Your task to perform on an android device: change notification settings in the gmail app Image 0: 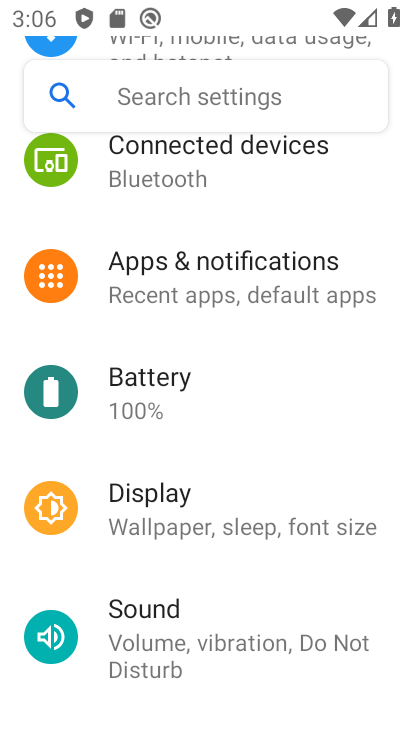
Step 0: click (298, 264)
Your task to perform on an android device: change notification settings in the gmail app Image 1: 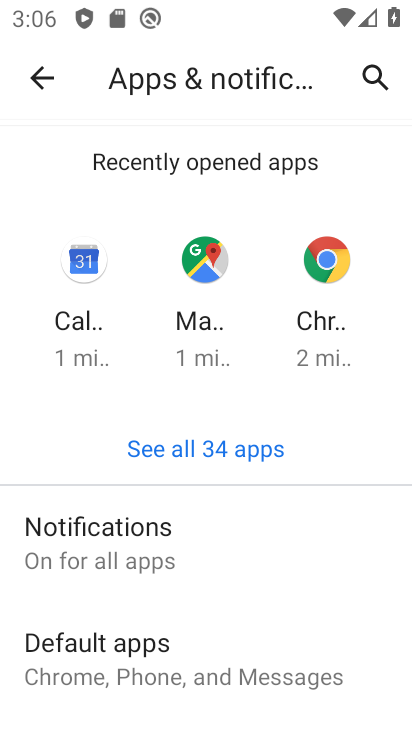
Step 1: click (115, 520)
Your task to perform on an android device: change notification settings in the gmail app Image 2: 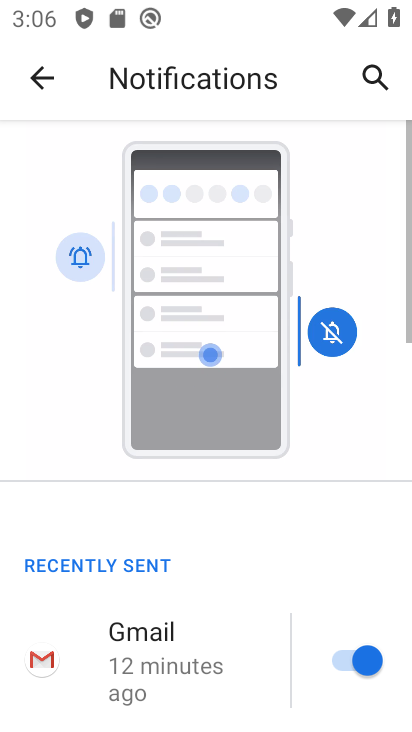
Step 2: drag from (241, 622) to (201, 305)
Your task to perform on an android device: change notification settings in the gmail app Image 3: 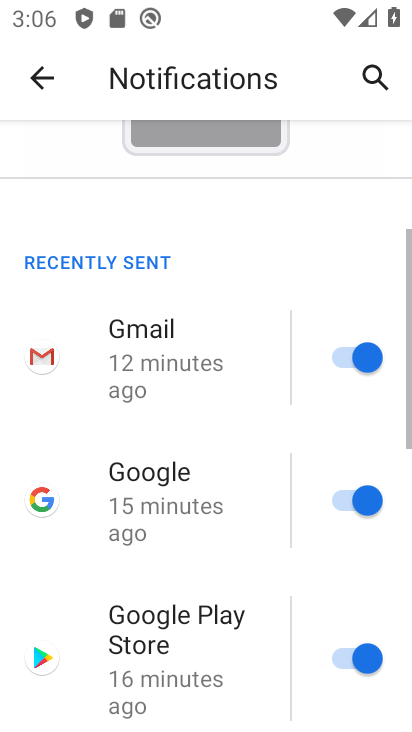
Step 3: drag from (215, 562) to (197, 278)
Your task to perform on an android device: change notification settings in the gmail app Image 4: 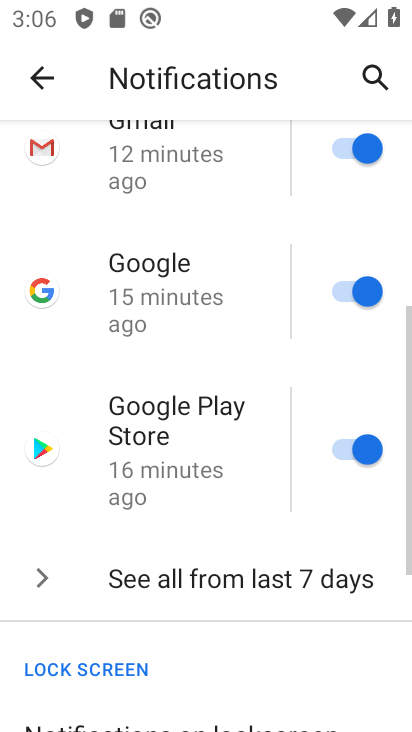
Step 4: drag from (199, 617) to (208, 274)
Your task to perform on an android device: change notification settings in the gmail app Image 5: 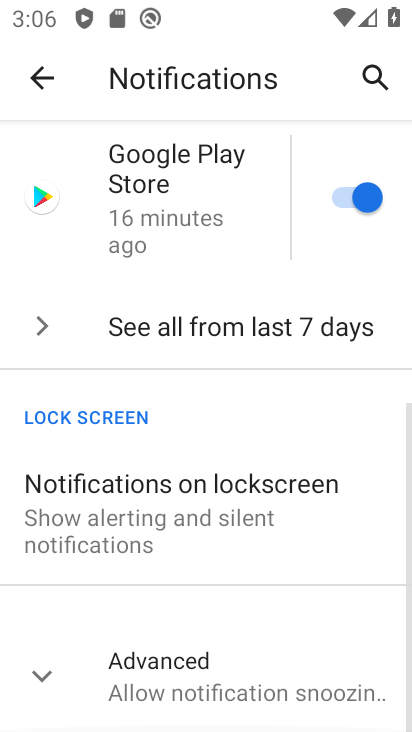
Step 5: drag from (196, 545) to (211, 317)
Your task to perform on an android device: change notification settings in the gmail app Image 6: 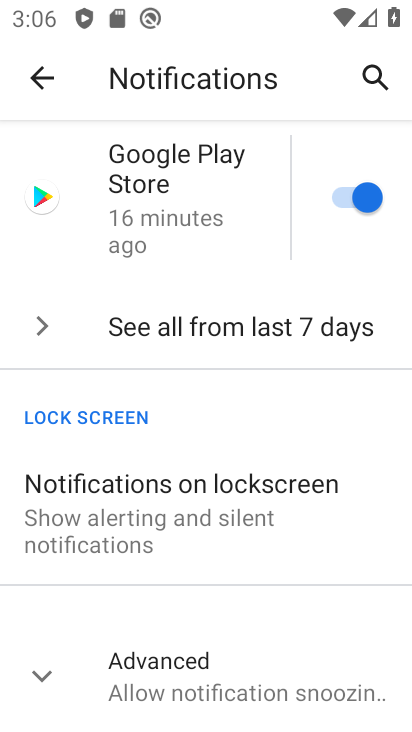
Step 6: drag from (246, 290) to (251, 619)
Your task to perform on an android device: change notification settings in the gmail app Image 7: 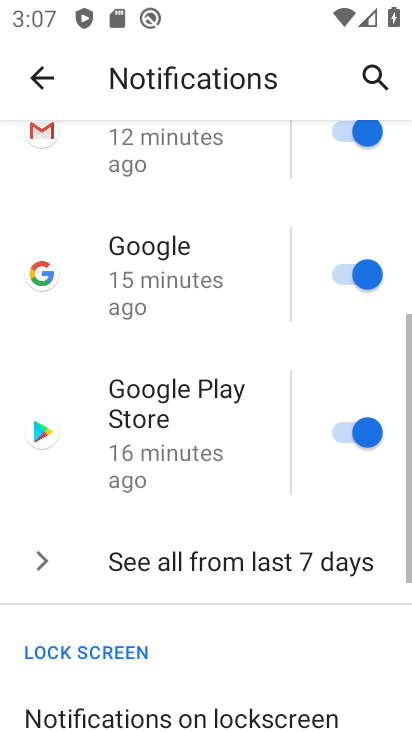
Step 7: click (146, 251)
Your task to perform on an android device: change notification settings in the gmail app Image 8: 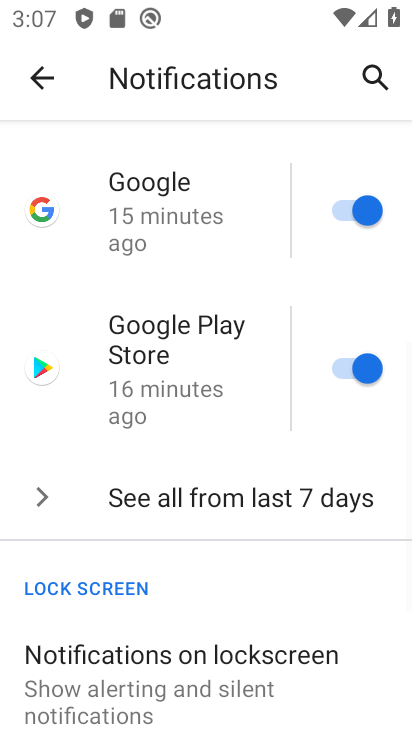
Step 8: drag from (147, 637) to (149, 388)
Your task to perform on an android device: change notification settings in the gmail app Image 9: 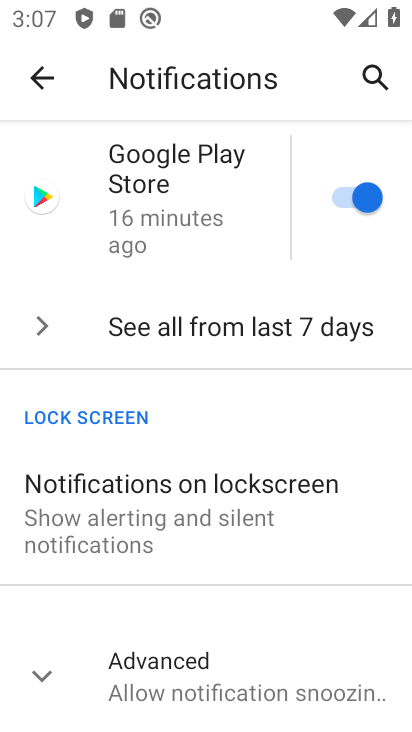
Step 9: click (187, 552)
Your task to perform on an android device: change notification settings in the gmail app Image 10: 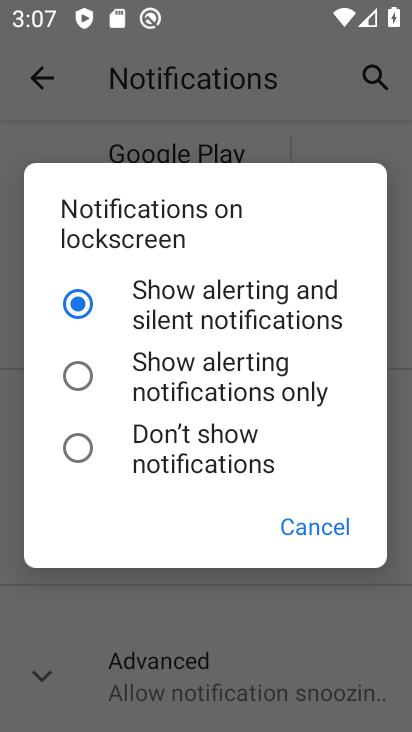
Step 10: click (160, 431)
Your task to perform on an android device: change notification settings in the gmail app Image 11: 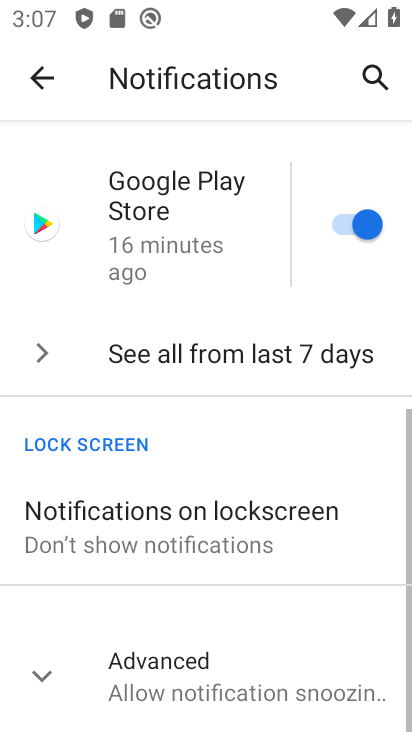
Step 11: task complete